Your task to perform on an android device: Go to Reddit.com Image 0: 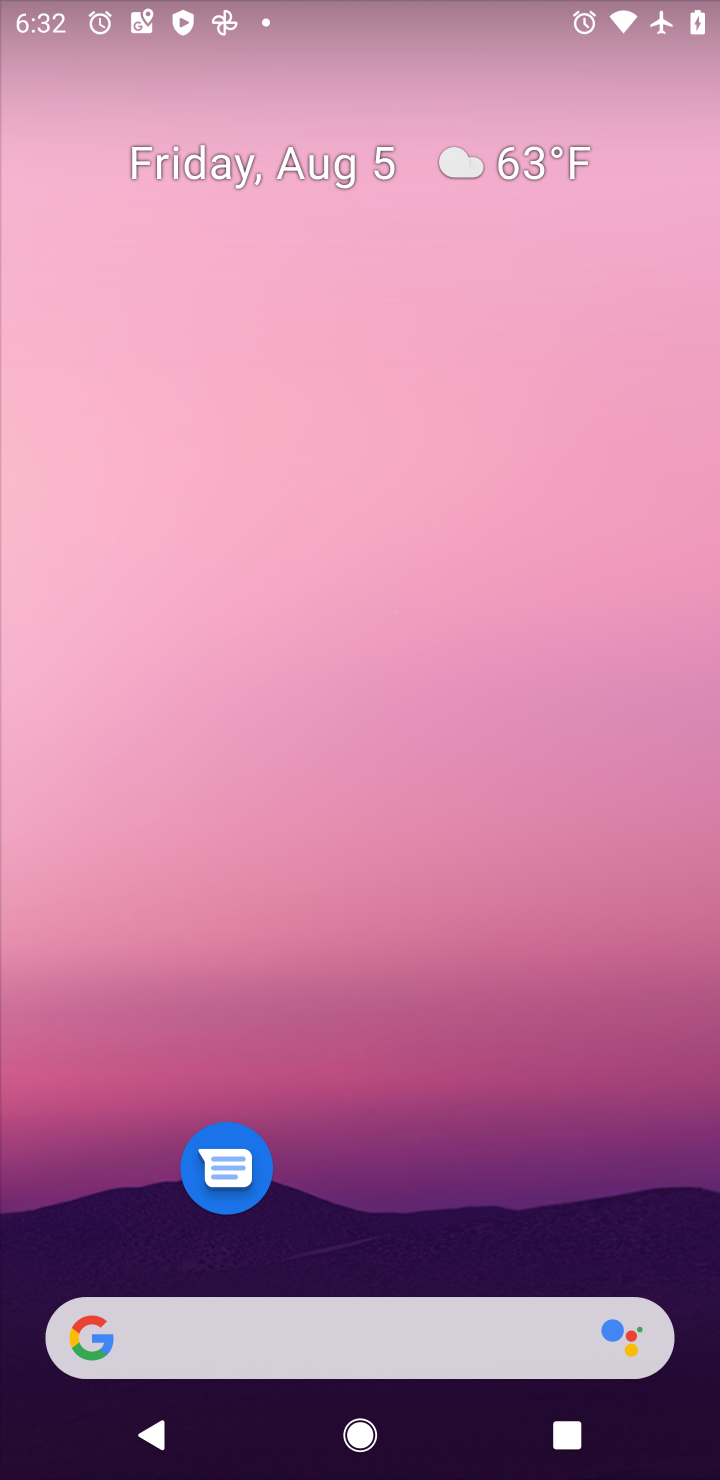
Step 0: press home button
Your task to perform on an android device: Go to Reddit.com Image 1: 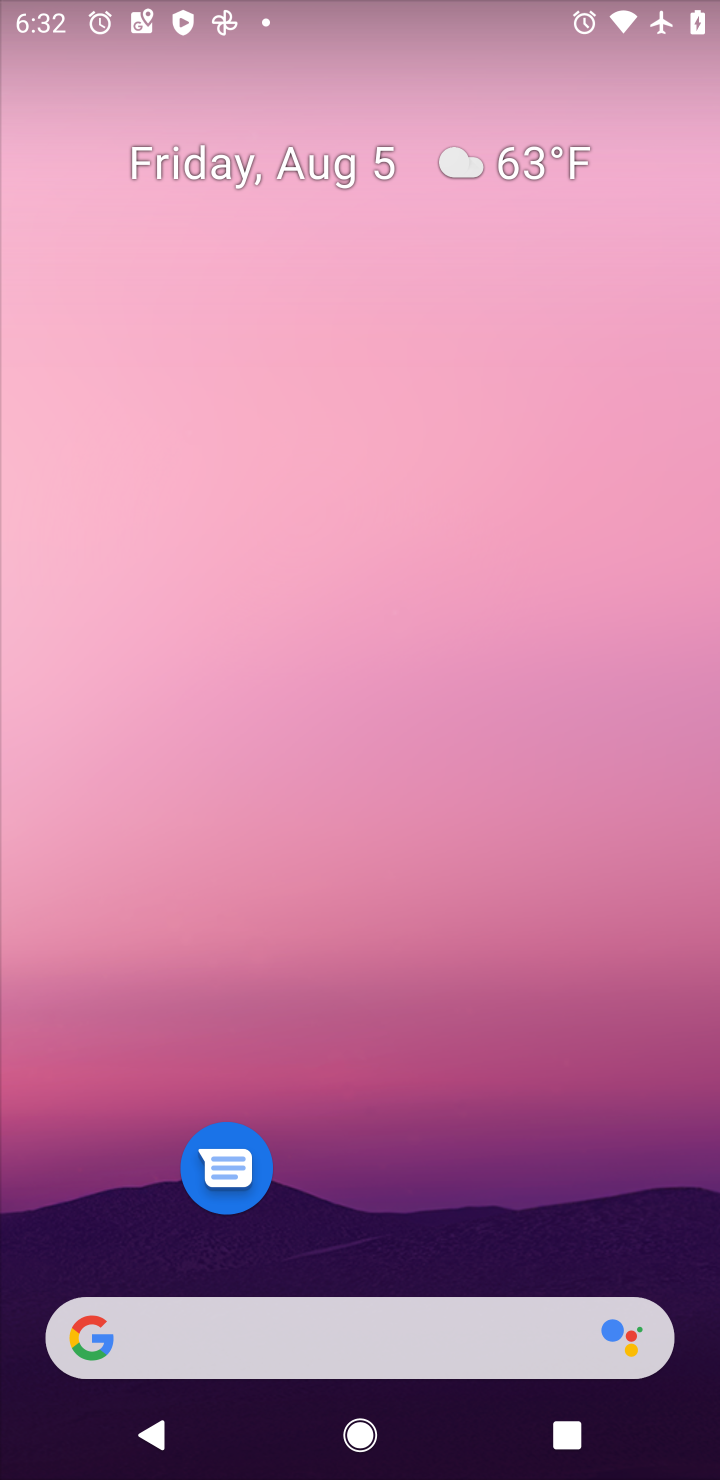
Step 1: click (68, 1347)
Your task to perform on an android device: Go to Reddit.com Image 2: 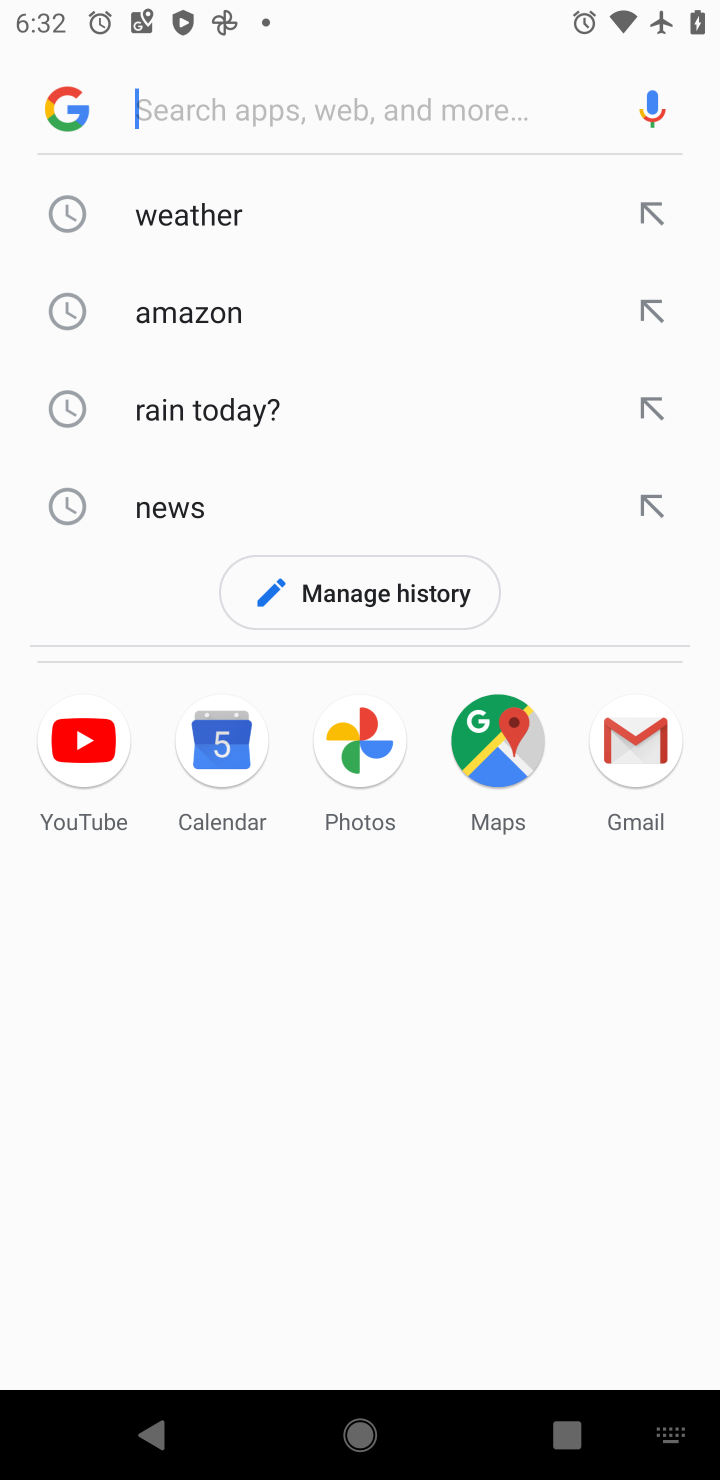
Step 2: type "Reddit.com"
Your task to perform on an android device: Go to Reddit.com Image 3: 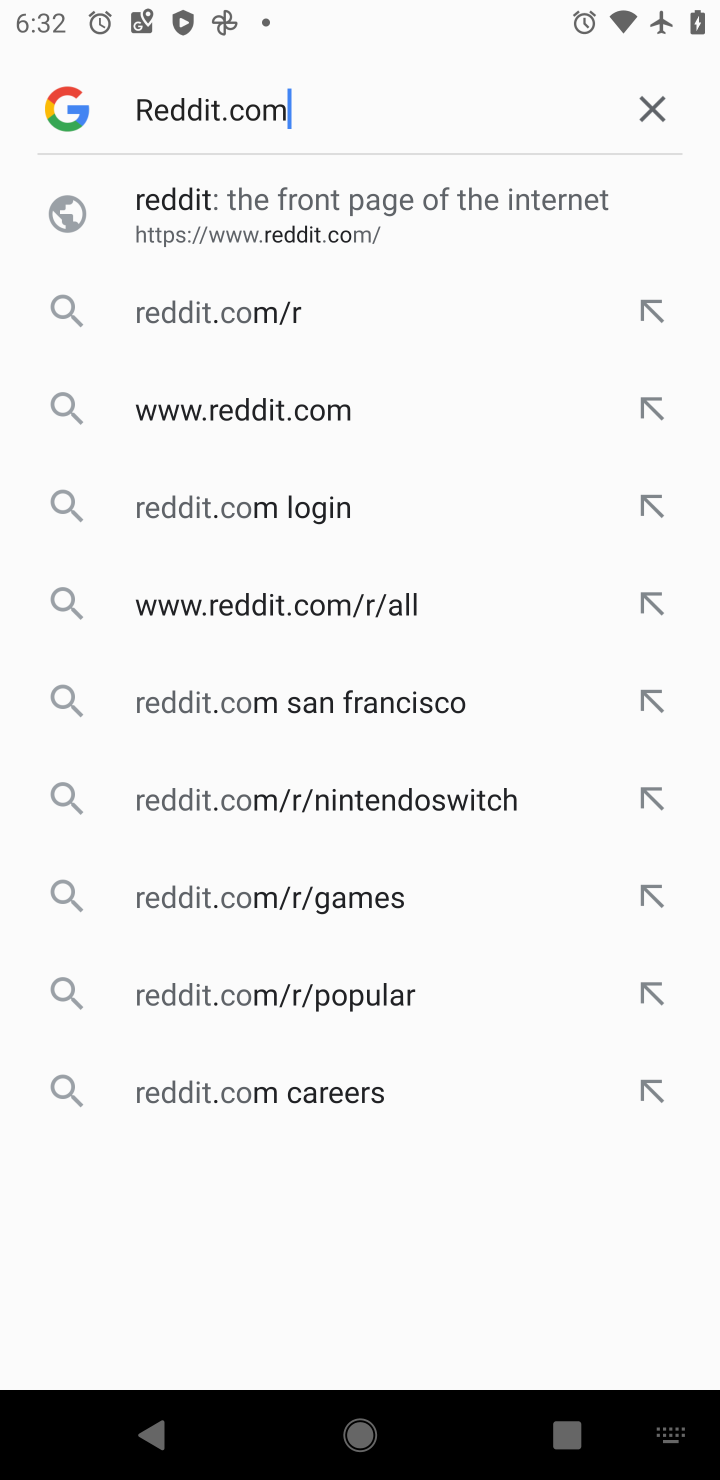
Step 3: press enter
Your task to perform on an android device: Go to Reddit.com Image 4: 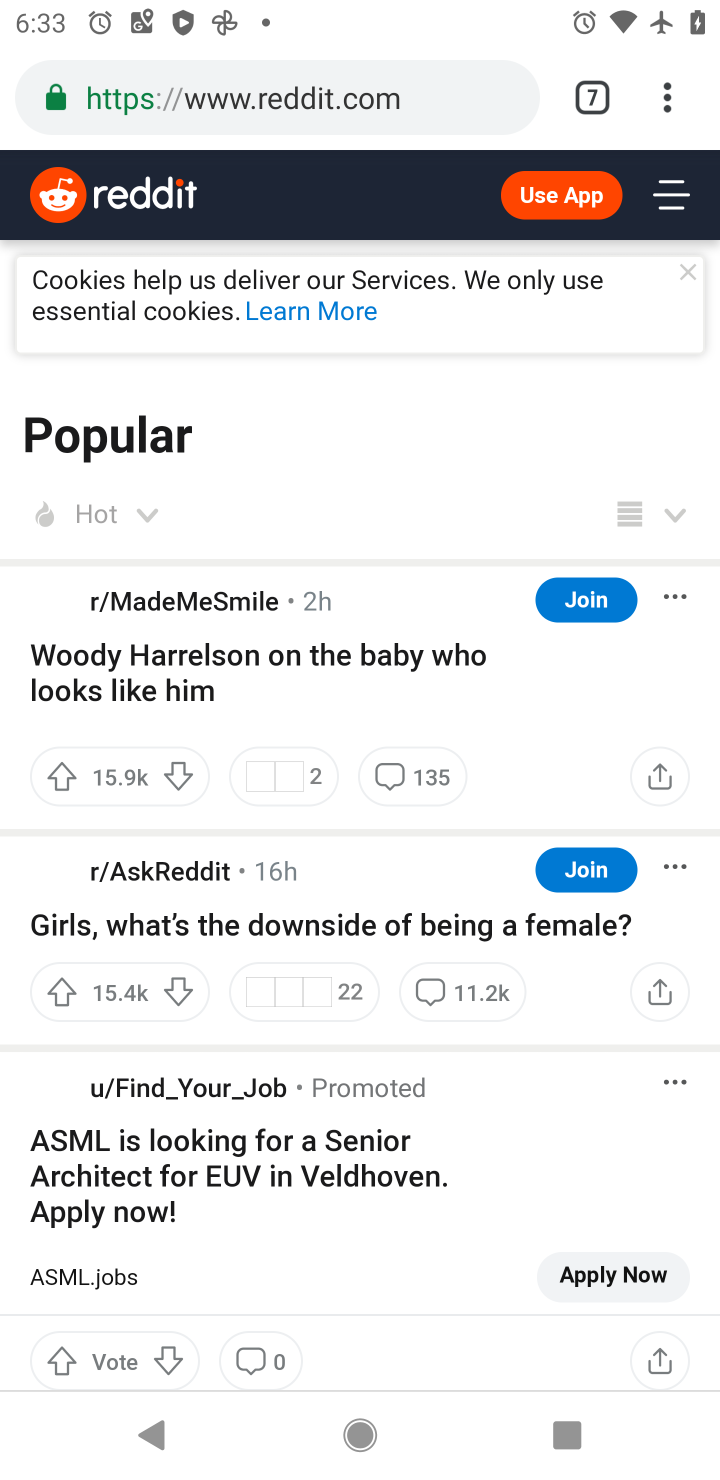
Step 4: task complete